Your task to perform on an android device: open a bookmark in the chrome app Image 0: 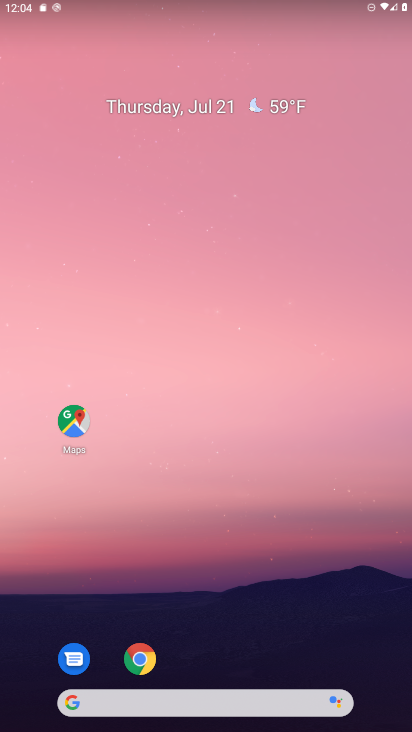
Step 0: click (132, 650)
Your task to perform on an android device: open a bookmark in the chrome app Image 1: 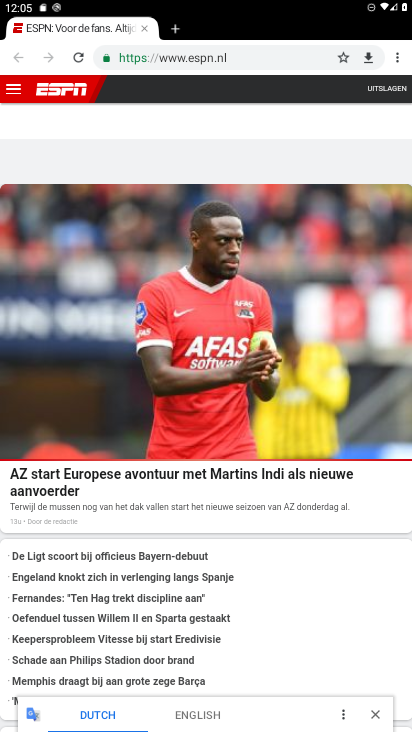
Step 1: click (401, 62)
Your task to perform on an android device: open a bookmark in the chrome app Image 2: 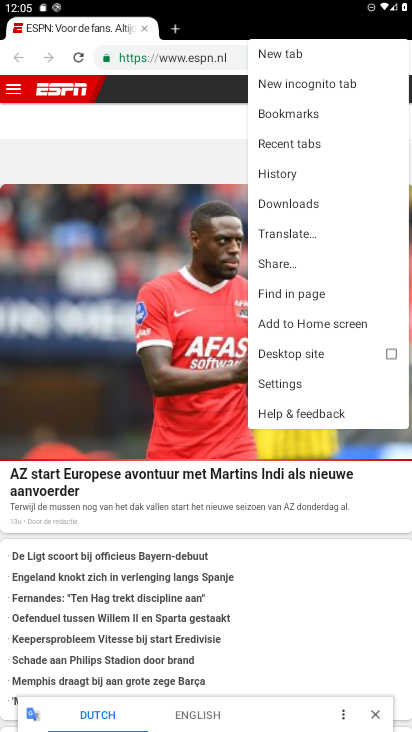
Step 2: click (295, 107)
Your task to perform on an android device: open a bookmark in the chrome app Image 3: 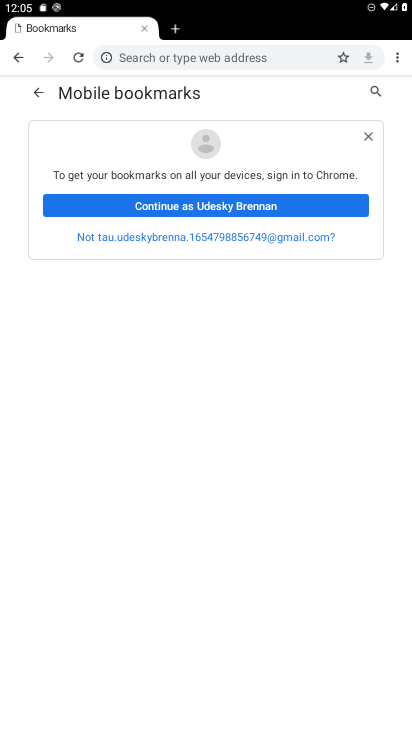
Step 3: click (363, 138)
Your task to perform on an android device: open a bookmark in the chrome app Image 4: 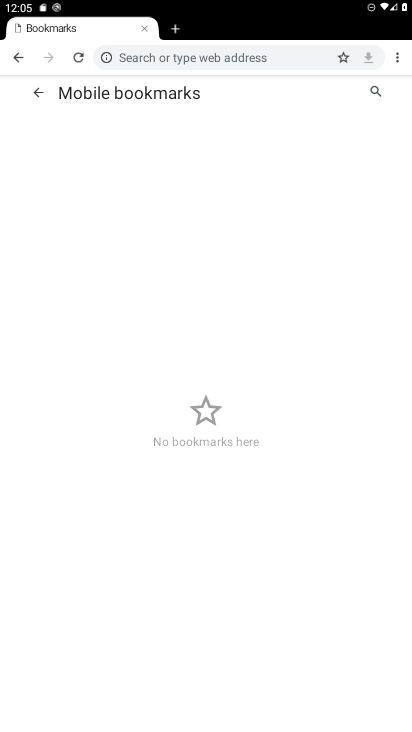
Step 4: task complete